Your task to perform on an android device: allow notifications from all sites in the chrome app Image 0: 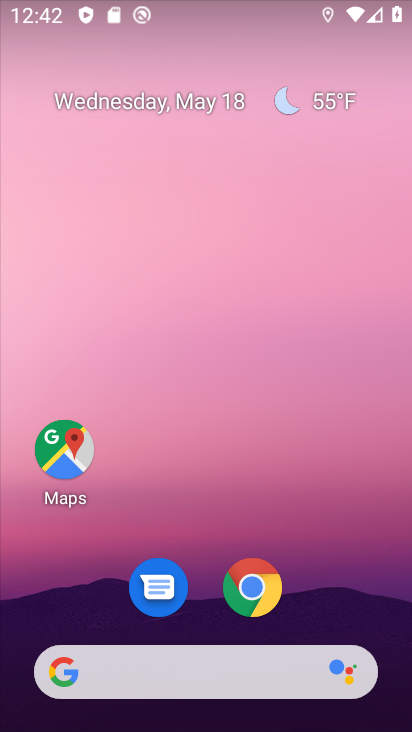
Step 0: click (252, 600)
Your task to perform on an android device: allow notifications from all sites in the chrome app Image 1: 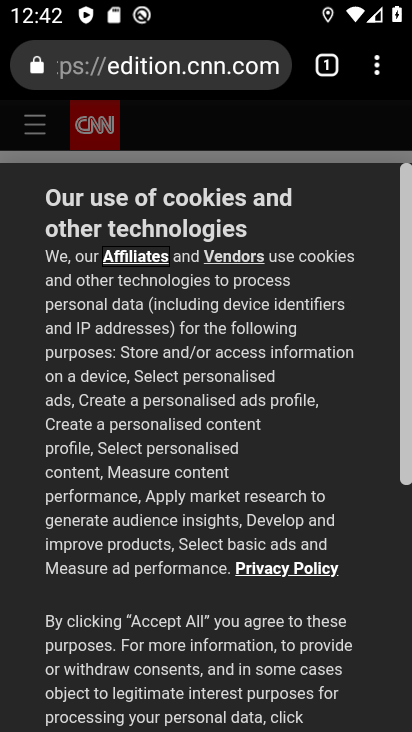
Step 1: drag from (372, 68) to (138, 631)
Your task to perform on an android device: allow notifications from all sites in the chrome app Image 2: 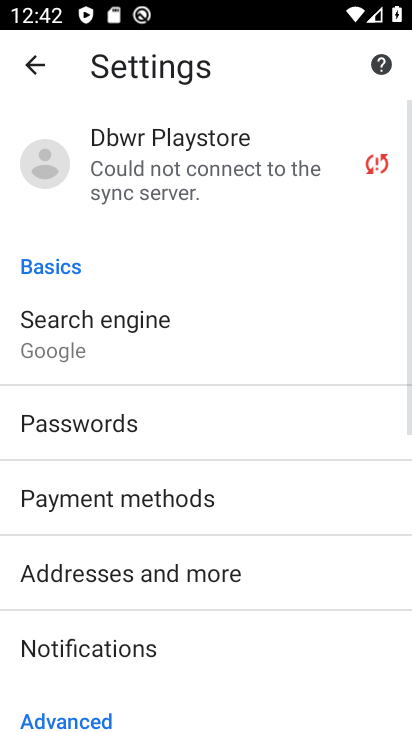
Step 2: click (140, 645)
Your task to perform on an android device: allow notifications from all sites in the chrome app Image 3: 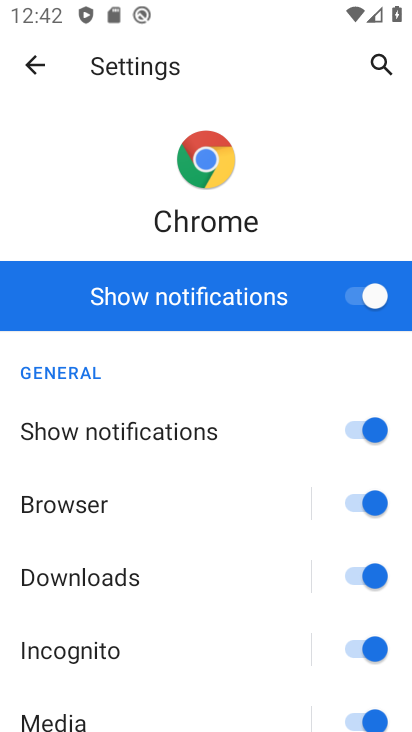
Step 3: task complete